Your task to perform on an android device: toggle notification dots Image 0: 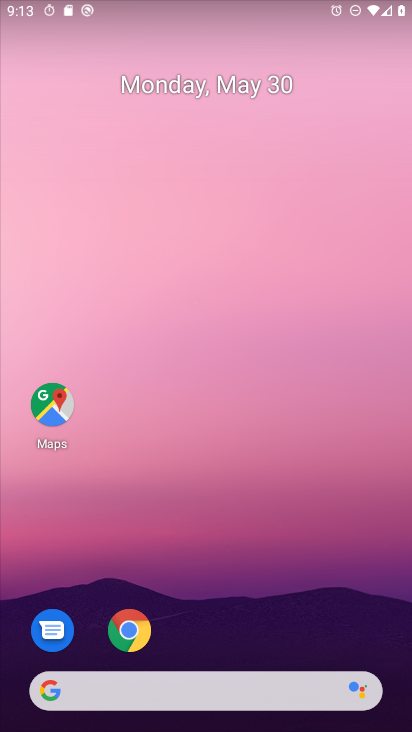
Step 0: drag from (354, 624) to (313, 188)
Your task to perform on an android device: toggle notification dots Image 1: 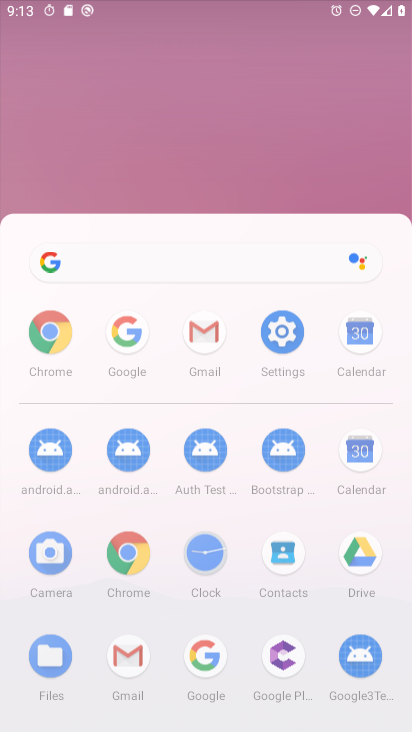
Step 1: click (290, 73)
Your task to perform on an android device: toggle notification dots Image 2: 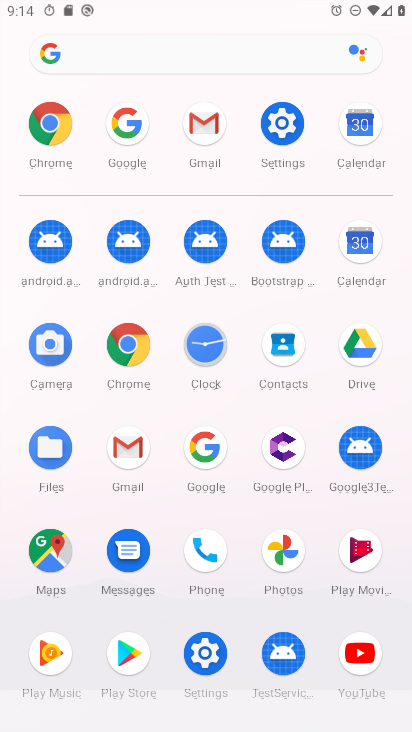
Step 2: click (273, 123)
Your task to perform on an android device: toggle notification dots Image 3: 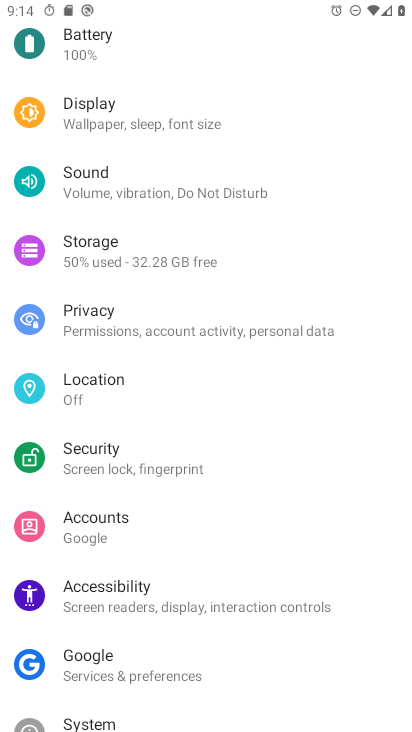
Step 3: drag from (164, 126) to (206, 635)
Your task to perform on an android device: toggle notification dots Image 4: 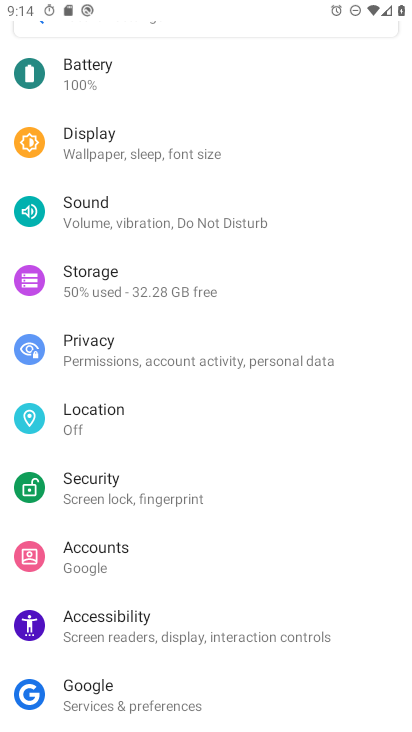
Step 4: drag from (167, 200) to (201, 602)
Your task to perform on an android device: toggle notification dots Image 5: 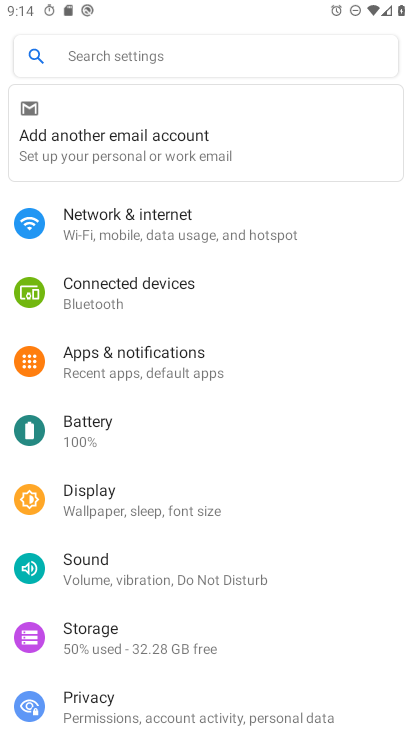
Step 5: click (158, 378)
Your task to perform on an android device: toggle notification dots Image 6: 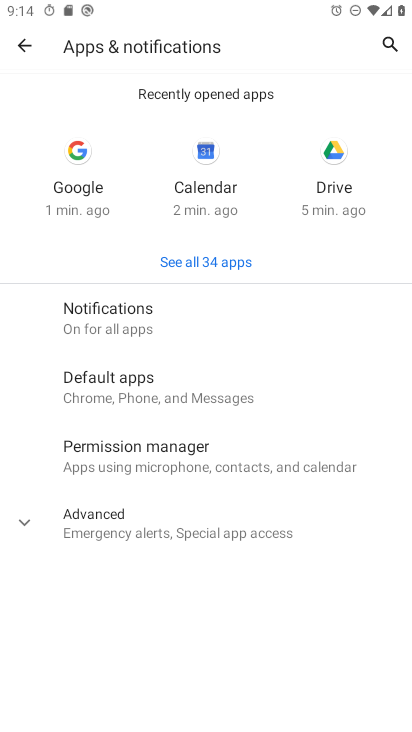
Step 6: click (92, 331)
Your task to perform on an android device: toggle notification dots Image 7: 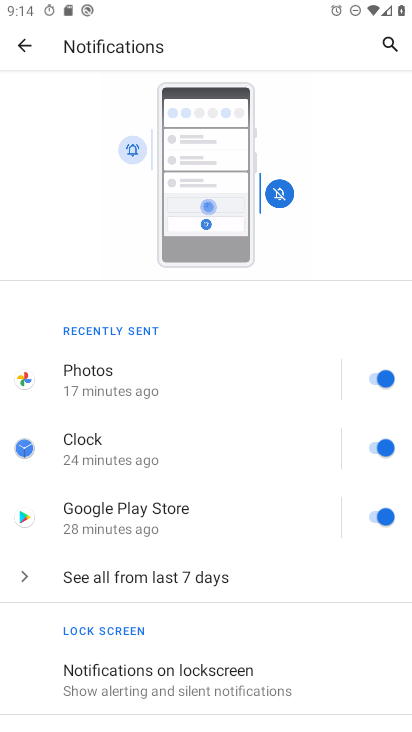
Step 7: drag from (187, 672) to (185, 241)
Your task to perform on an android device: toggle notification dots Image 8: 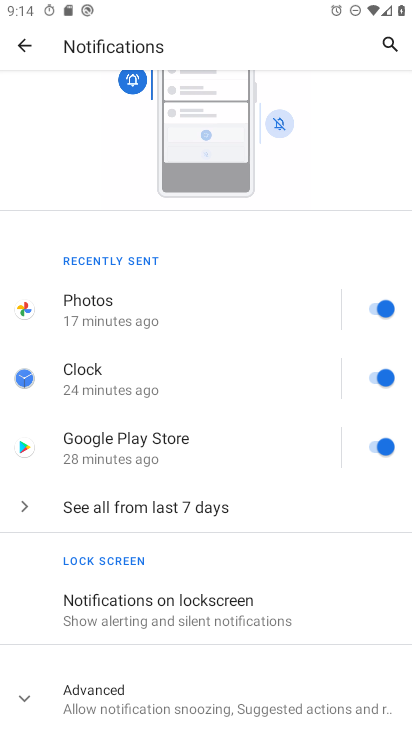
Step 8: click (152, 727)
Your task to perform on an android device: toggle notification dots Image 9: 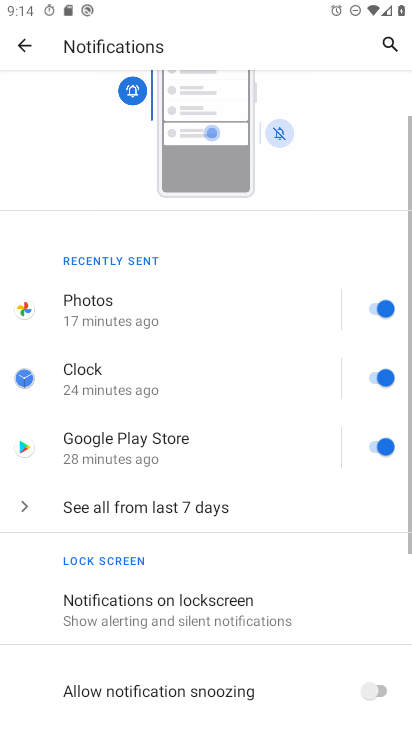
Step 9: drag from (152, 693) to (199, 232)
Your task to perform on an android device: toggle notification dots Image 10: 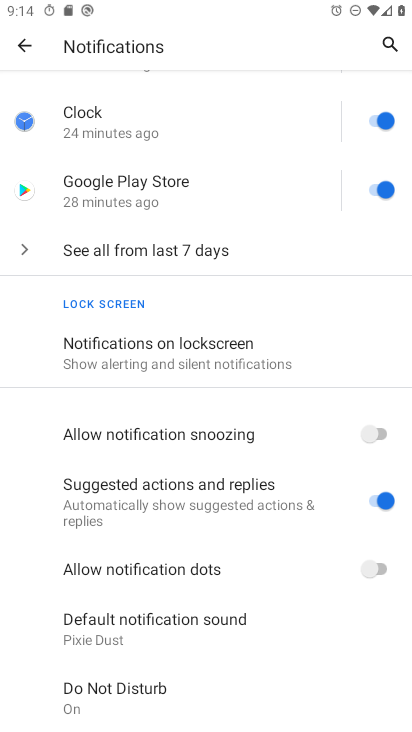
Step 10: click (285, 568)
Your task to perform on an android device: toggle notification dots Image 11: 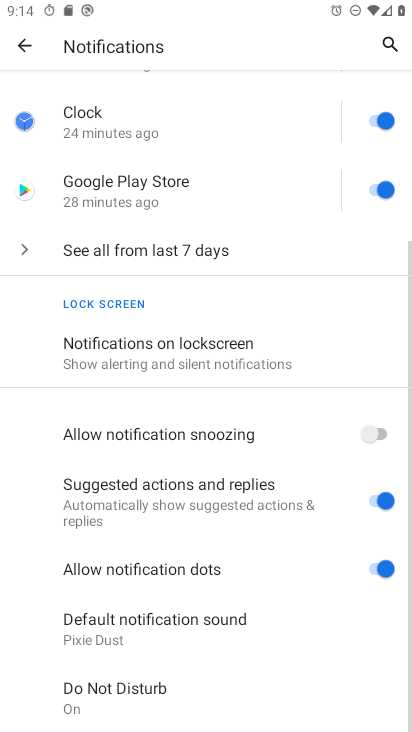
Step 11: task complete